Your task to perform on an android device: turn off location Image 0: 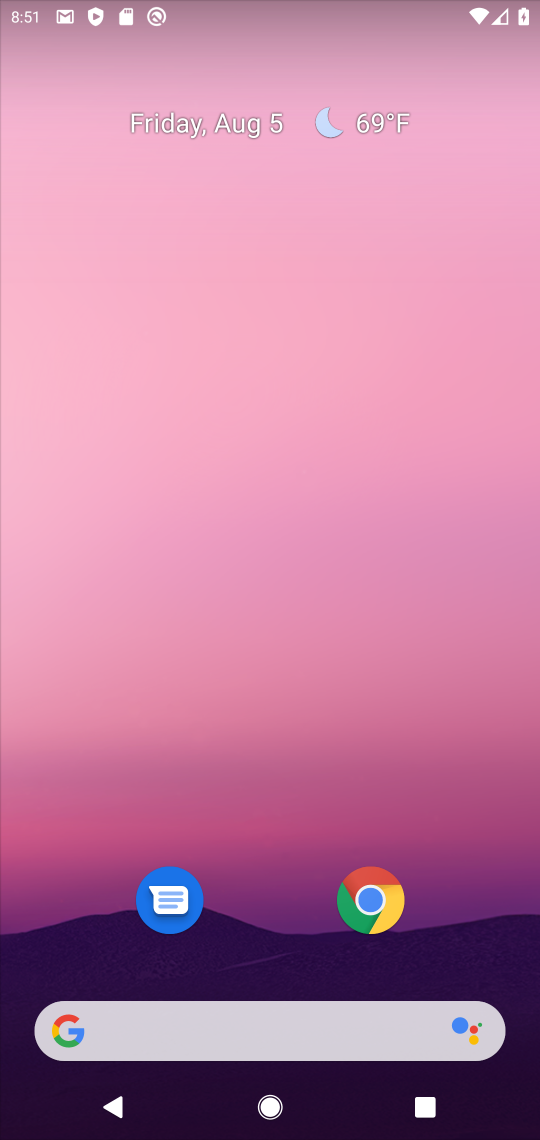
Step 0: drag from (229, 996) to (258, 229)
Your task to perform on an android device: turn off location Image 1: 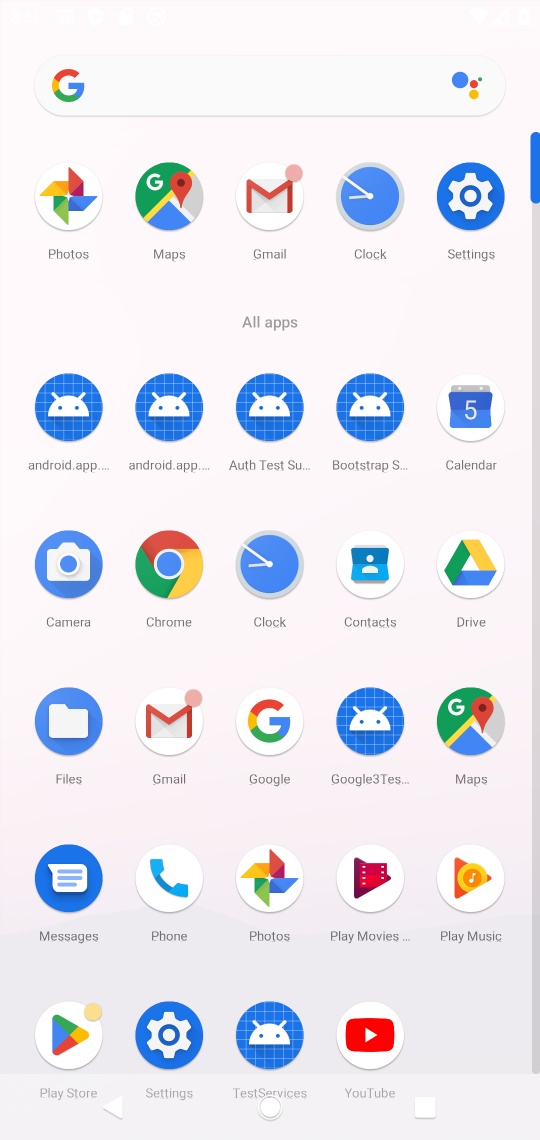
Step 1: click (487, 199)
Your task to perform on an android device: turn off location Image 2: 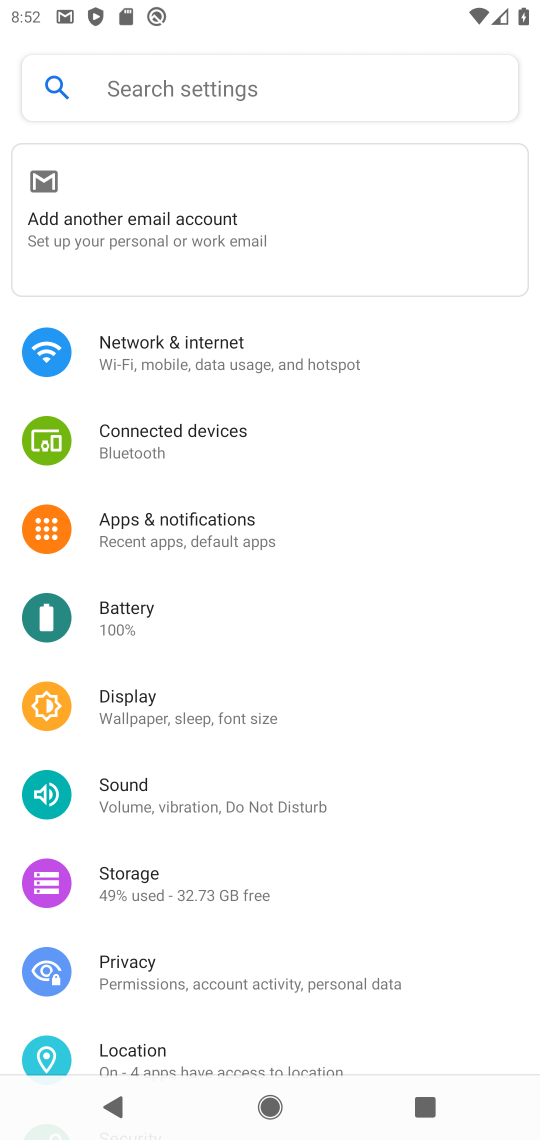
Step 2: click (188, 1046)
Your task to perform on an android device: turn off location Image 3: 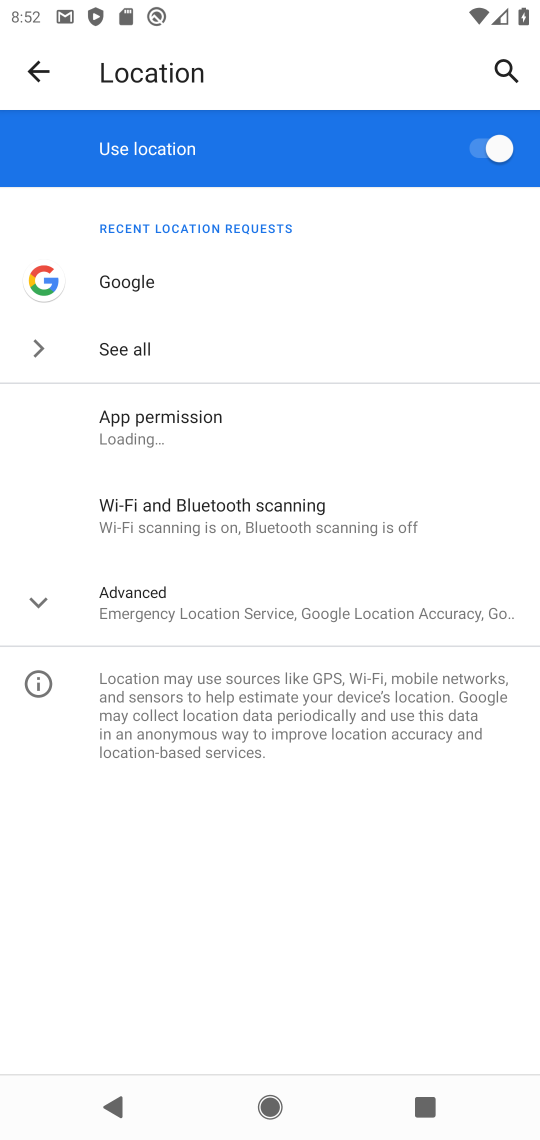
Step 3: click (496, 146)
Your task to perform on an android device: turn off location Image 4: 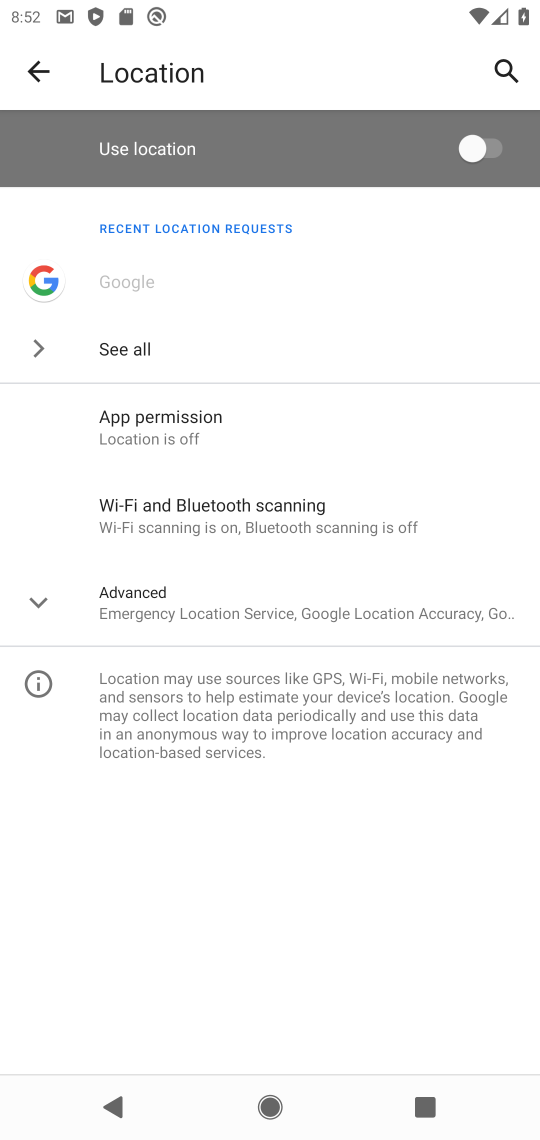
Step 4: task complete